Your task to perform on an android device: Turn off the flashlight Image 0: 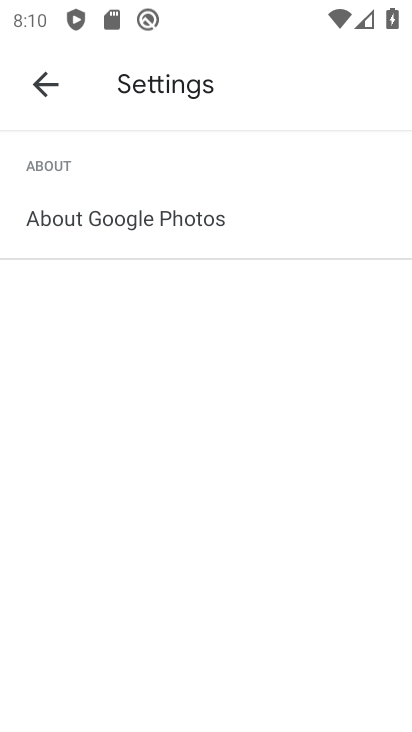
Step 0: press home button
Your task to perform on an android device: Turn off the flashlight Image 1: 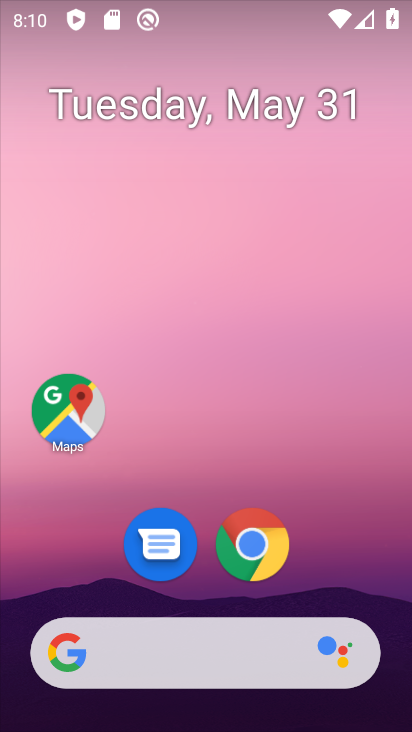
Step 1: task complete